Your task to perform on an android device: empty trash in google photos Image 0: 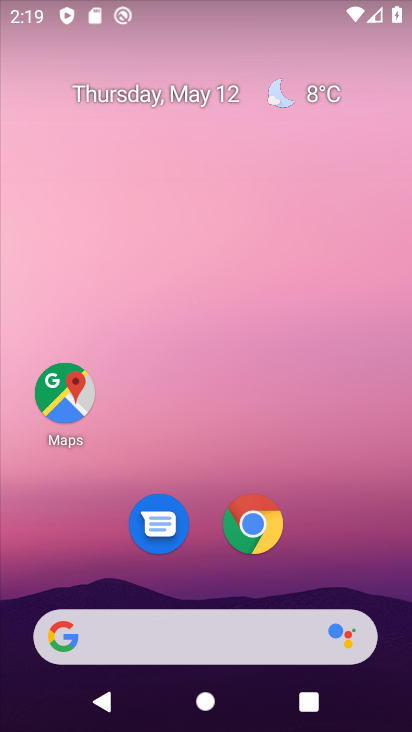
Step 0: drag from (226, 432) to (246, 0)
Your task to perform on an android device: empty trash in google photos Image 1: 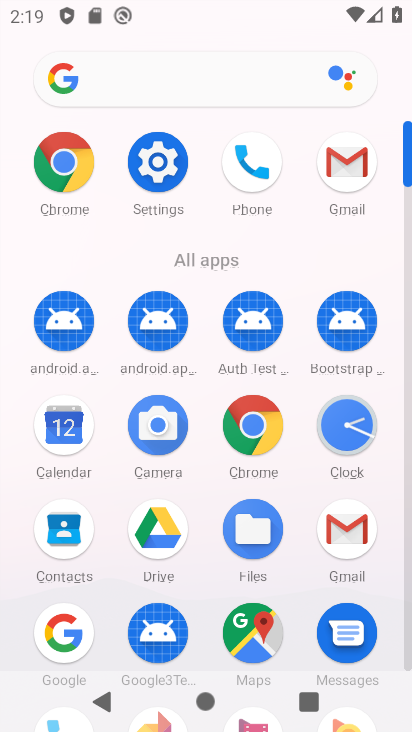
Step 1: drag from (199, 466) to (246, 185)
Your task to perform on an android device: empty trash in google photos Image 2: 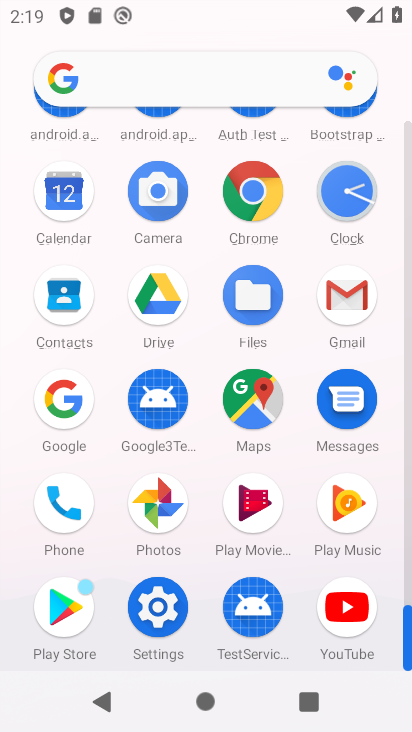
Step 2: click (161, 488)
Your task to perform on an android device: empty trash in google photos Image 3: 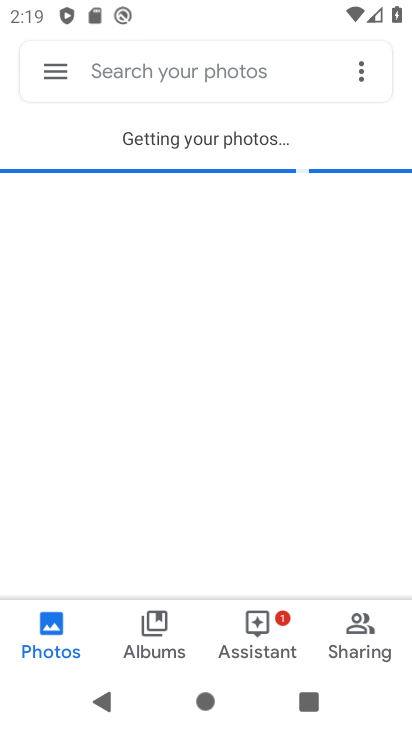
Step 3: click (49, 62)
Your task to perform on an android device: empty trash in google photos Image 4: 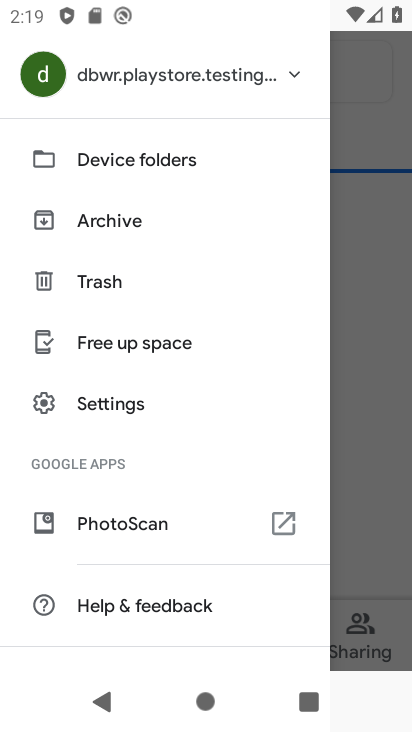
Step 4: click (95, 282)
Your task to perform on an android device: empty trash in google photos Image 5: 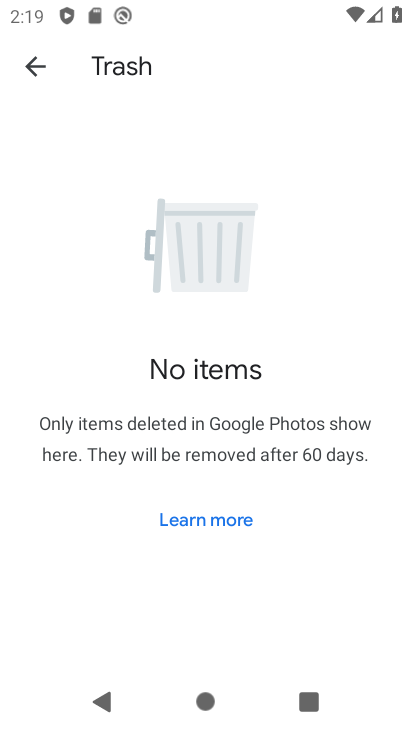
Step 5: task complete